Your task to perform on an android device: Open Google Maps Image 0: 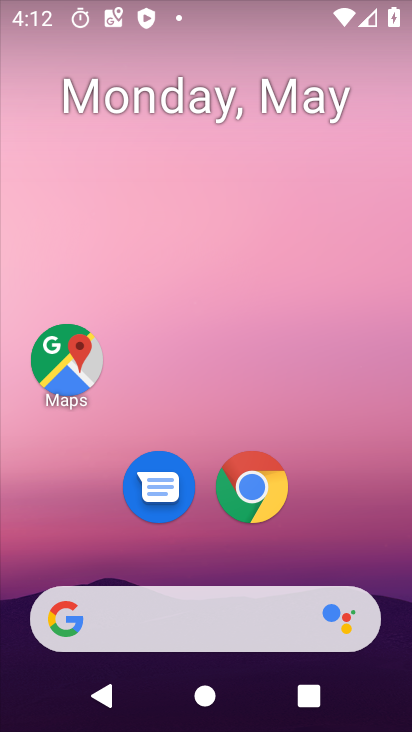
Step 0: click (72, 370)
Your task to perform on an android device: Open Google Maps Image 1: 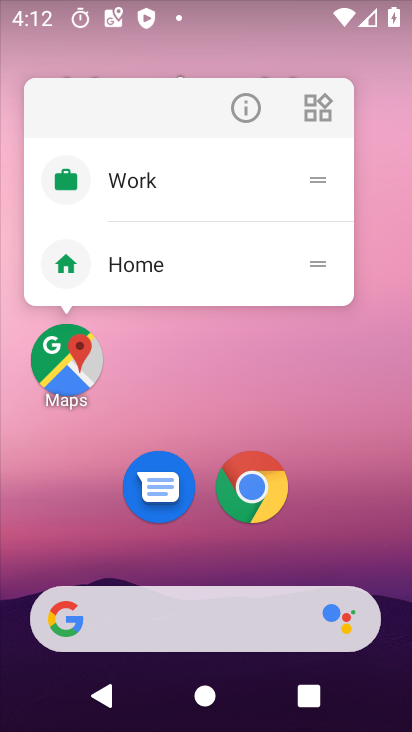
Step 1: click (83, 381)
Your task to perform on an android device: Open Google Maps Image 2: 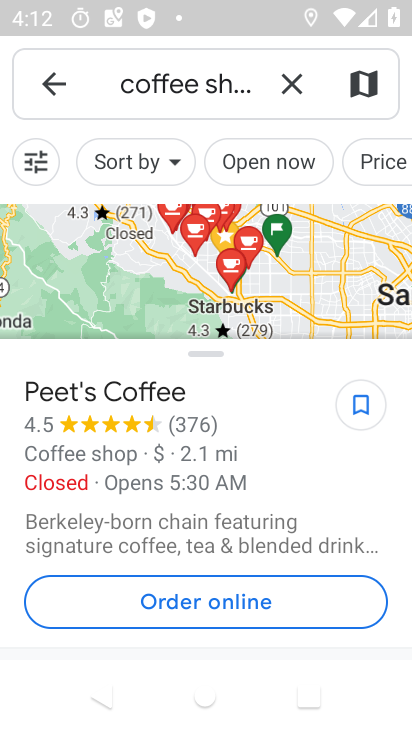
Step 2: click (282, 91)
Your task to perform on an android device: Open Google Maps Image 3: 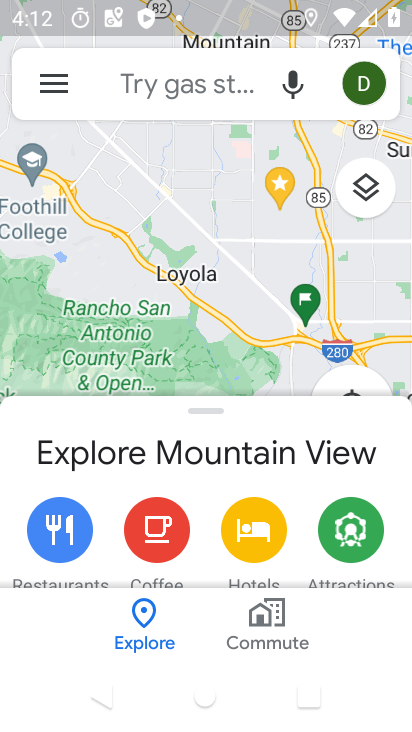
Step 3: click (179, 93)
Your task to perform on an android device: Open Google Maps Image 4: 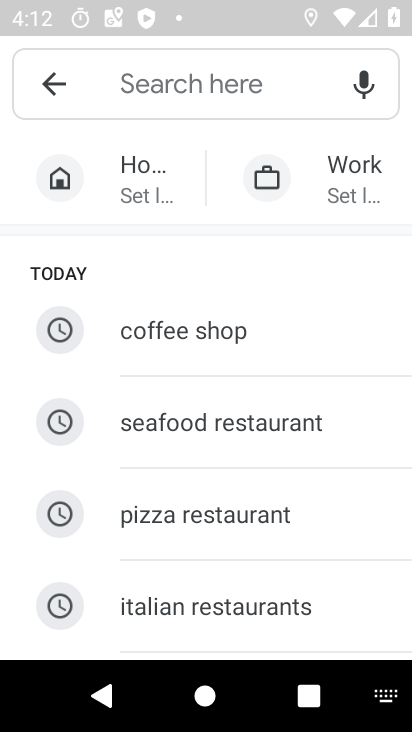
Step 4: click (42, 89)
Your task to perform on an android device: Open Google Maps Image 5: 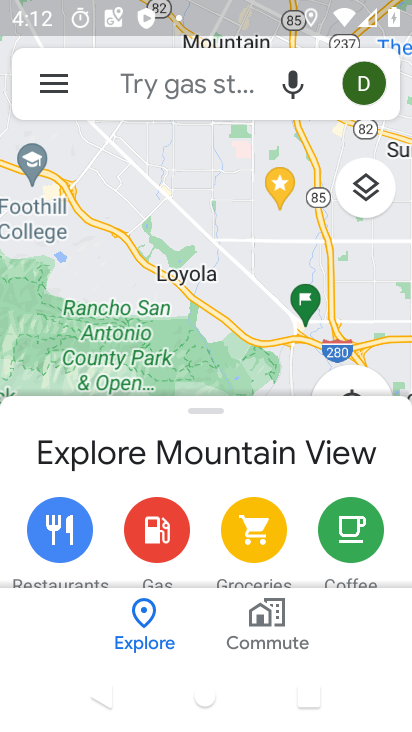
Step 5: task complete